Your task to perform on an android device: read, delete, or share a saved page in the chrome app Image 0: 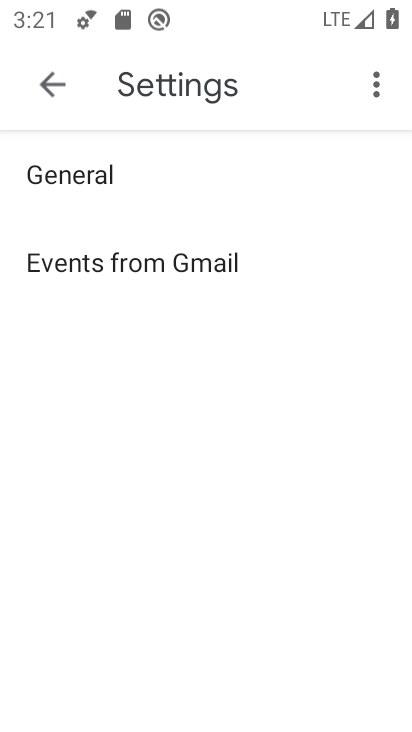
Step 0: press back button
Your task to perform on an android device: read, delete, or share a saved page in the chrome app Image 1: 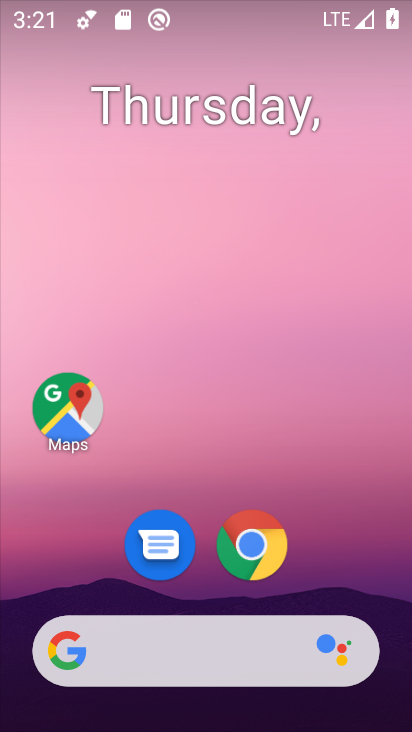
Step 1: click (253, 544)
Your task to perform on an android device: read, delete, or share a saved page in the chrome app Image 2: 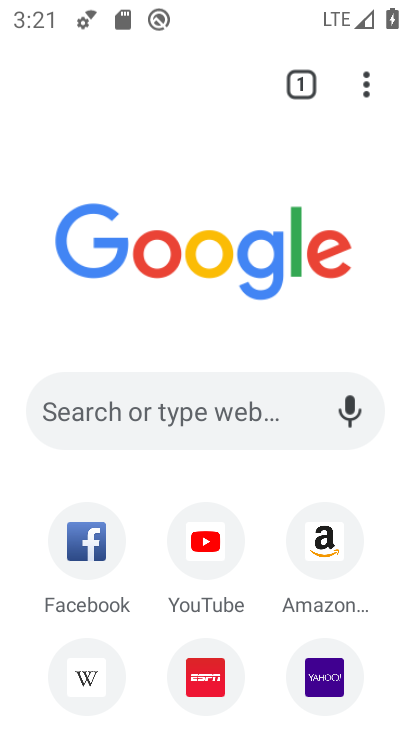
Step 2: click (367, 83)
Your task to perform on an android device: read, delete, or share a saved page in the chrome app Image 3: 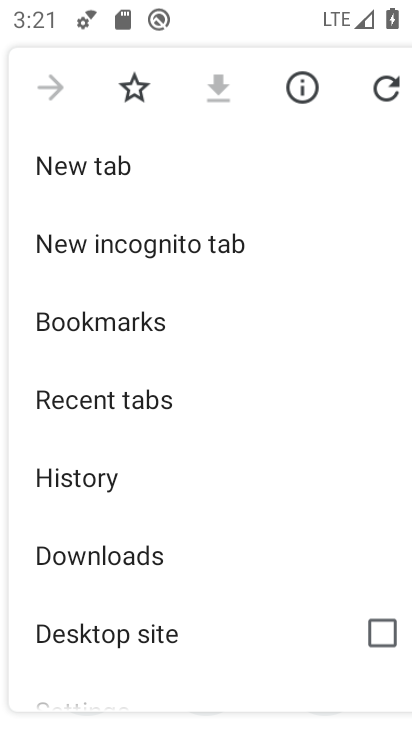
Step 3: click (118, 564)
Your task to perform on an android device: read, delete, or share a saved page in the chrome app Image 4: 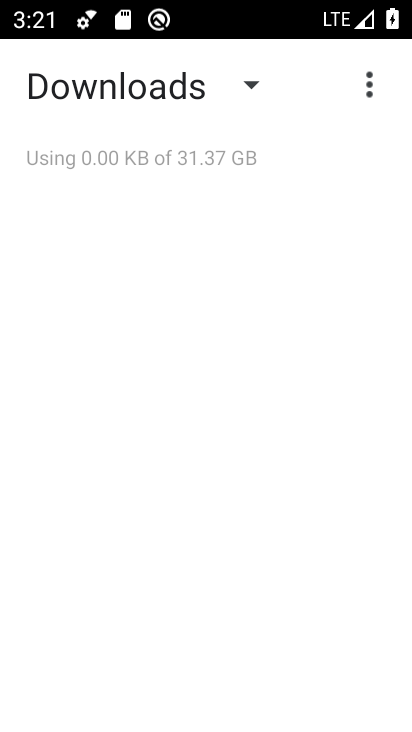
Step 4: click (249, 82)
Your task to perform on an android device: read, delete, or share a saved page in the chrome app Image 5: 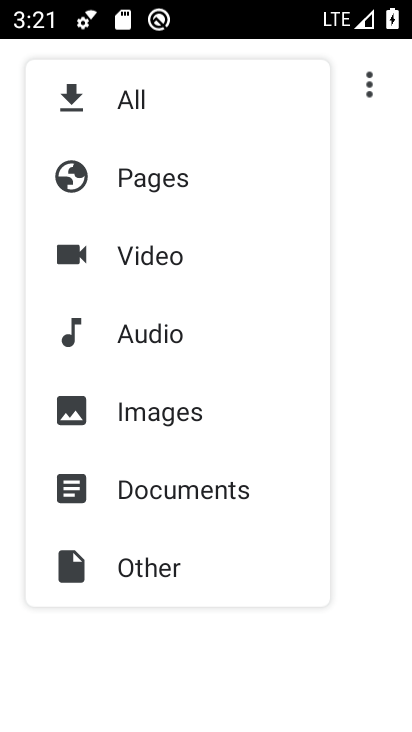
Step 5: click (129, 178)
Your task to perform on an android device: read, delete, or share a saved page in the chrome app Image 6: 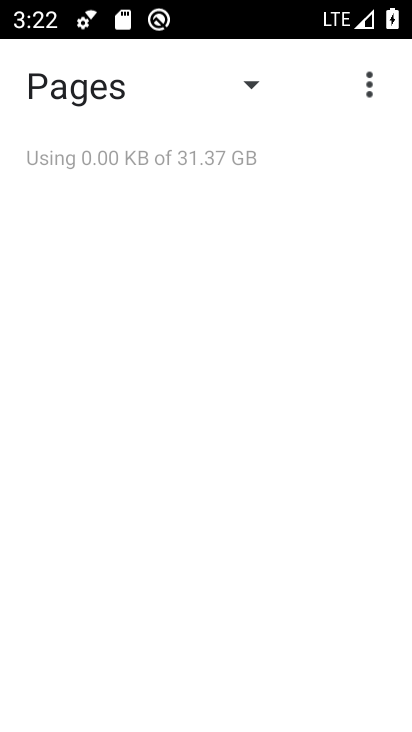
Step 6: click (368, 82)
Your task to perform on an android device: read, delete, or share a saved page in the chrome app Image 7: 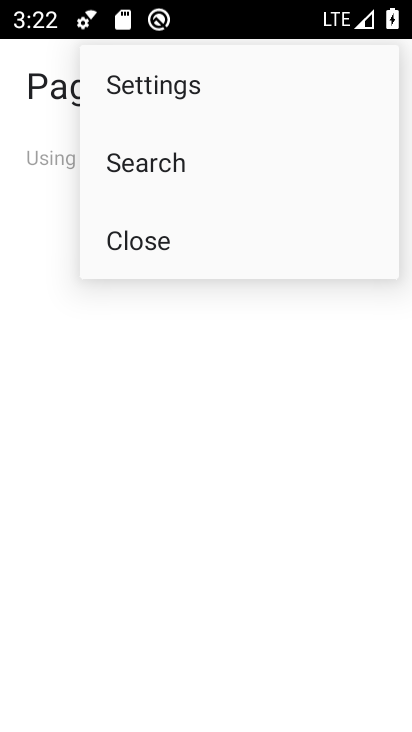
Step 7: click (180, 166)
Your task to perform on an android device: read, delete, or share a saved page in the chrome app Image 8: 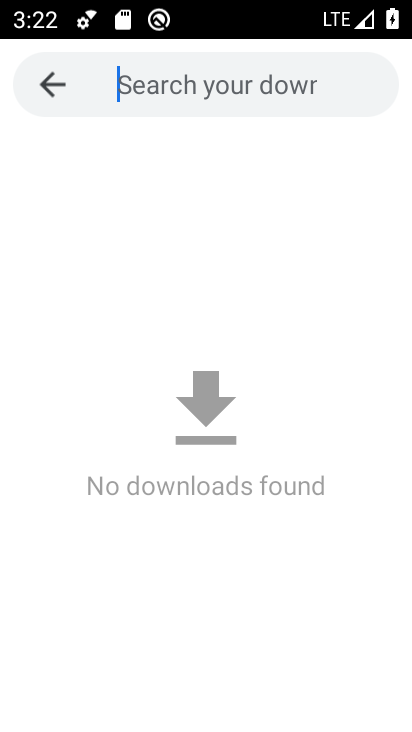
Step 8: click (43, 91)
Your task to perform on an android device: read, delete, or share a saved page in the chrome app Image 9: 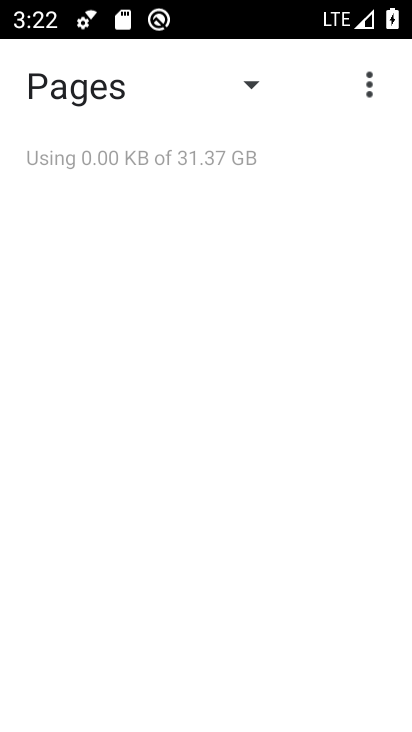
Step 9: click (247, 83)
Your task to perform on an android device: read, delete, or share a saved page in the chrome app Image 10: 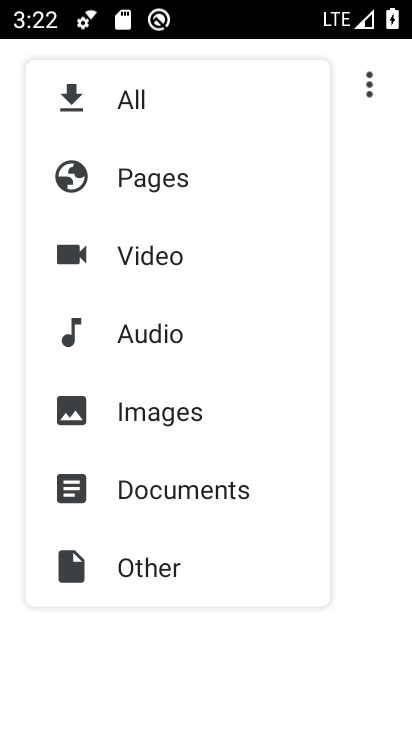
Step 10: click (137, 104)
Your task to perform on an android device: read, delete, or share a saved page in the chrome app Image 11: 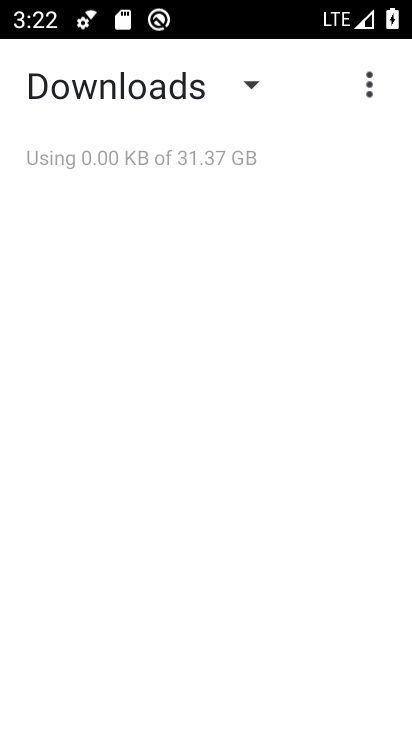
Step 11: task complete